Your task to perform on an android device: toggle improve location accuracy Image 0: 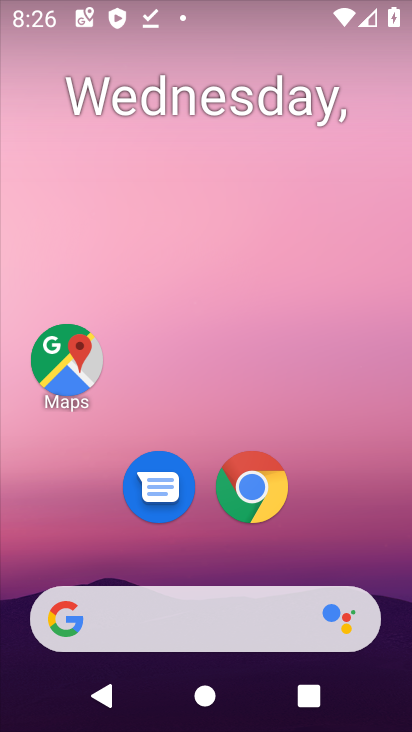
Step 0: drag from (250, 701) to (151, 167)
Your task to perform on an android device: toggle improve location accuracy Image 1: 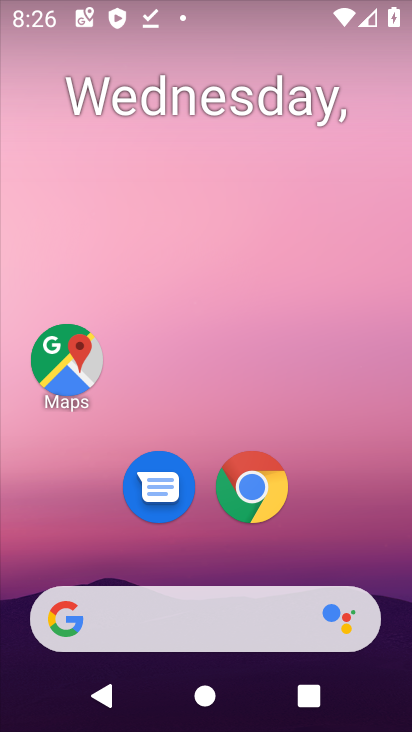
Step 1: drag from (254, 584) to (231, 299)
Your task to perform on an android device: toggle improve location accuracy Image 2: 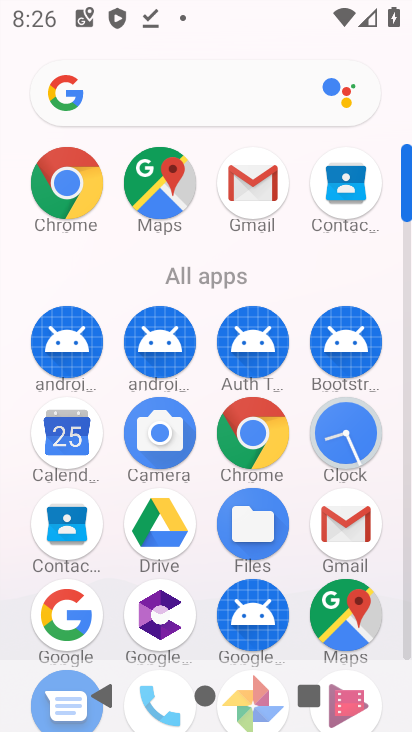
Step 2: drag from (194, 566) to (170, 306)
Your task to perform on an android device: toggle improve location accuracy Image 3: 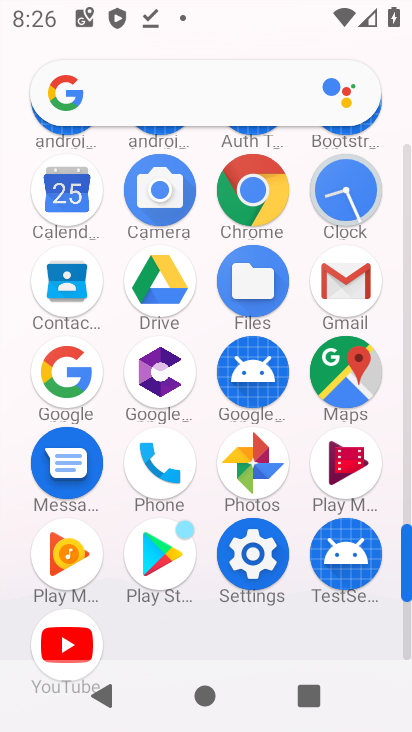
Step 3: click (251, 554)
Your task to perform on an android device: toggle improve location accuracy Image 4: 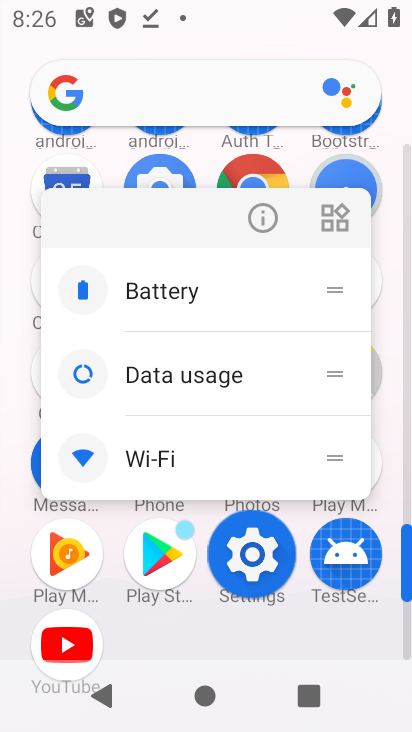
Step 4: click (251, 554)
Your task to perform on an android device: toggle improve location accuracy Image 5: 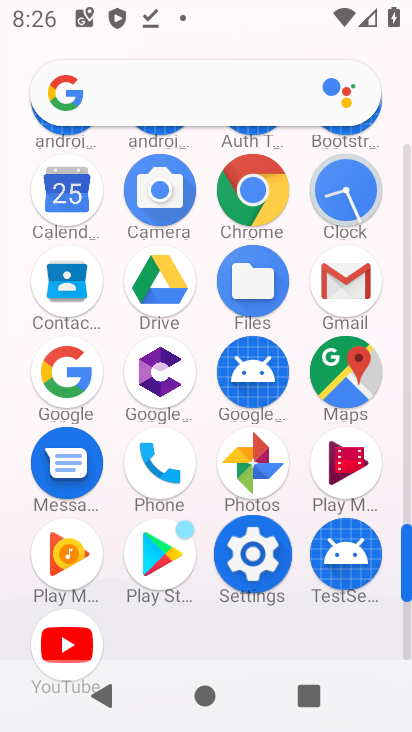
Step 5: click (251, 554)
Your task to perform on an android device: toggle improve location accuracy Image 6: 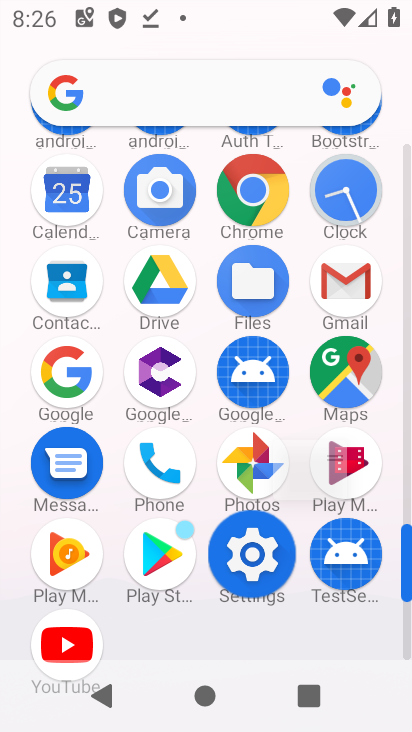
Step 6: click (251, 546)
Your task to perform on an android device: toggle improve location accuracy Image 7: 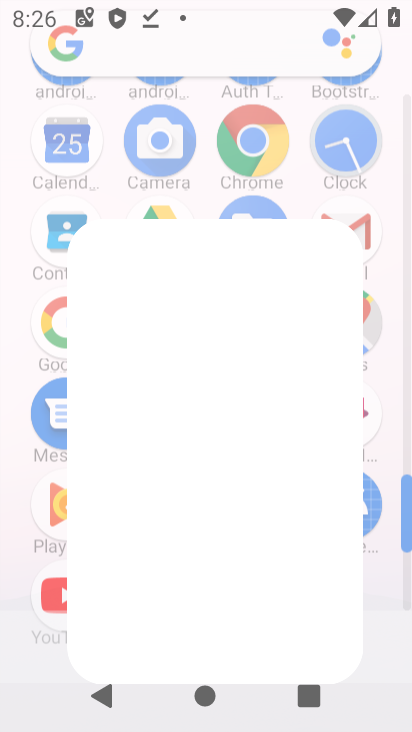
Step 7: click (251, 539)
Your task to perform on an android device: toggle improve location accuracy Image 8: 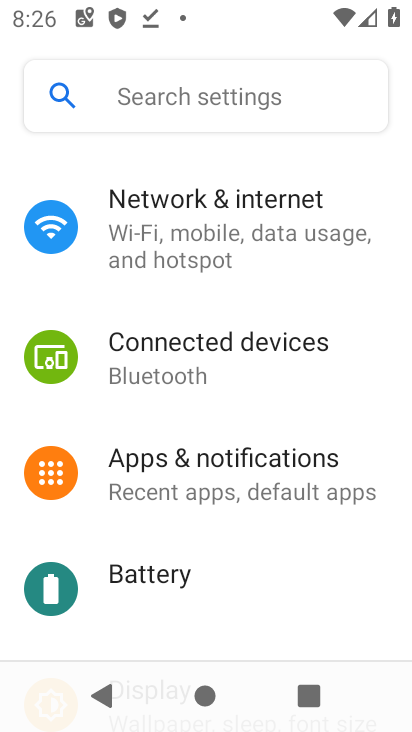
Step 8: click (260, 506)
Your task to perform on an android device: toggle improve location accuracy Image 9: 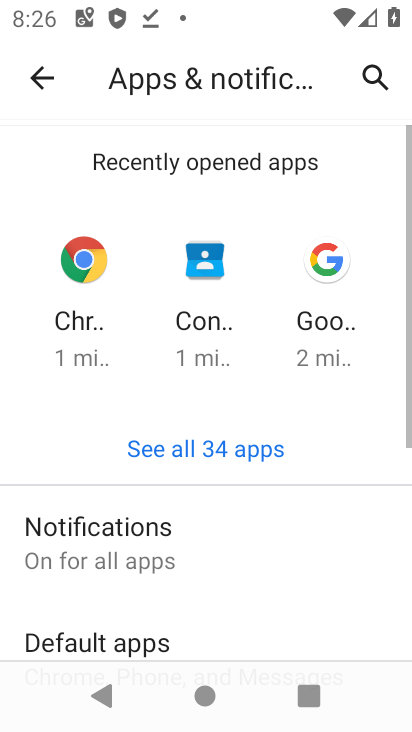
Step 9: click (38, 74)
Your task to perform on an android device: toggle improve location accuracy Image 10: 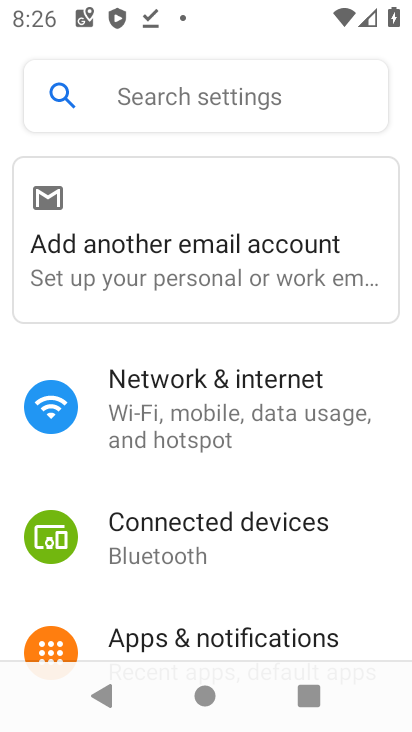
Step 10: drag from (198, 597) to (172, 137)
Your task to perform on an android device: toggle improve location accuracy Image 11: 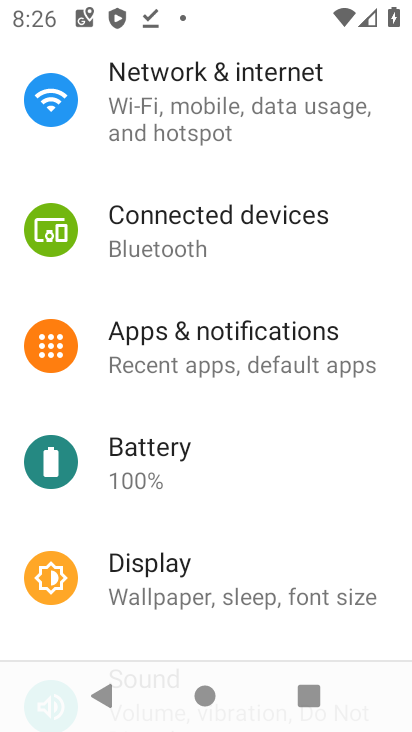
Step 11: drag from (173, 464) to (198, 175)
Your task to perform on an android device: toggle improve location accuracy Image 12: 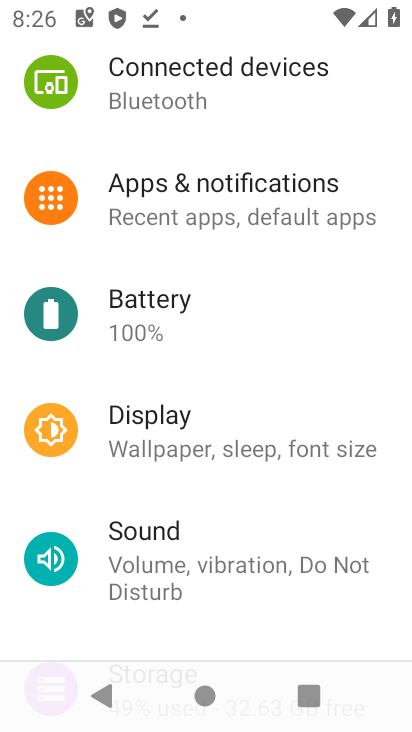
Step 12: drag from (240, 494) to (233, 198)
Your task to perform on an android device: toggle improve location accuracy Image 13: 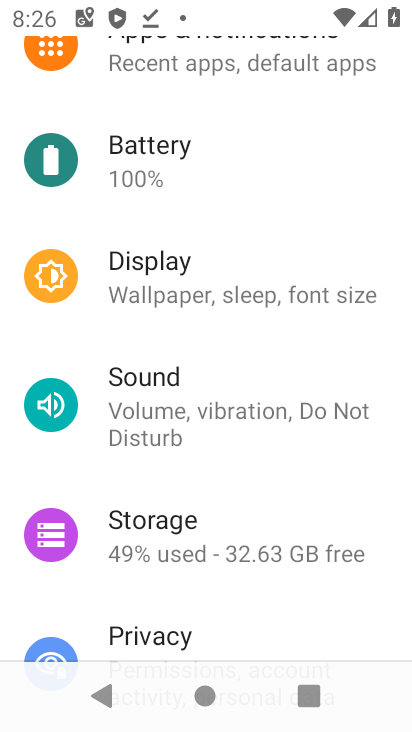
Step 13: drag from (260, 452) to (260, 171)
Your task to perform on an android device: toggle improve location accuracy Image 14: 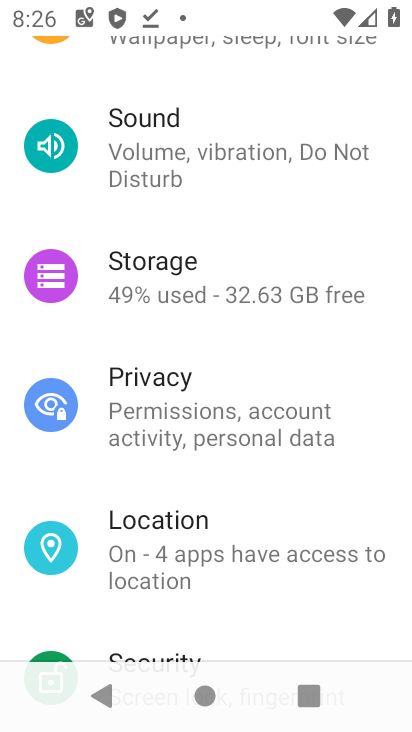
Step 14: drag from (261, 483) to (206, 147)
Your task to perform on an android device: toggle improve location accuracy Image 15: 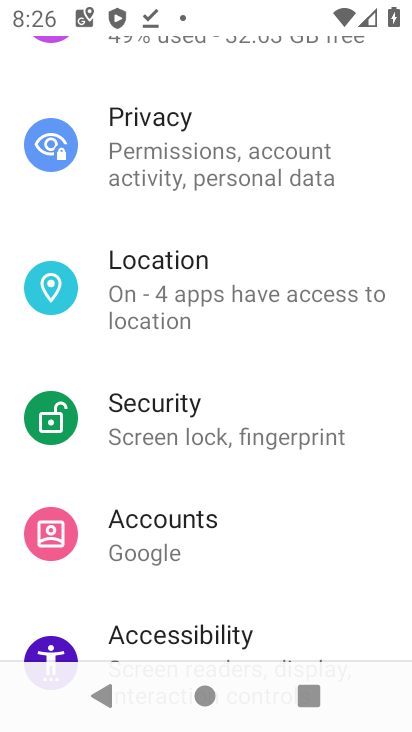
Step 15: click (176, 281)
Your task to perform on an android device: toggle improve location accuracy Image 16: 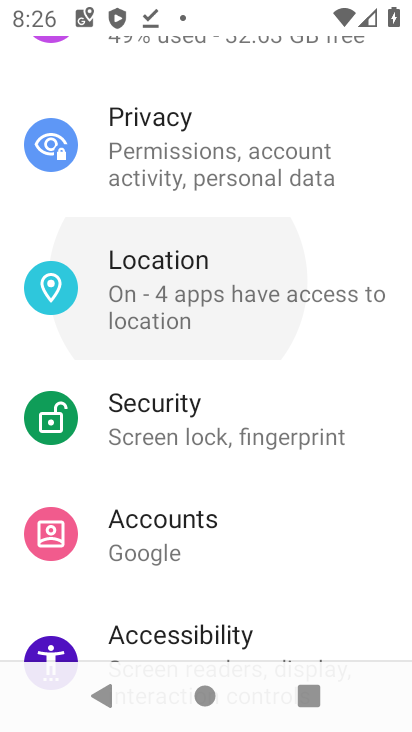
Step 16: click (176, 281)
Your task to perform on an android device: toggle improve location accuracy Image 17: 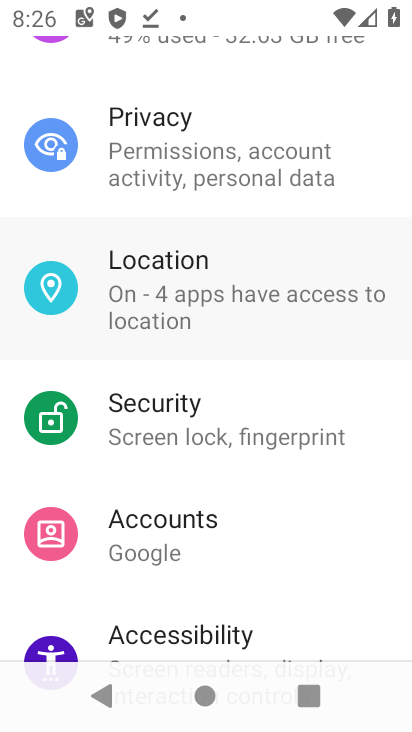
Step 17: click (176, 281)
Your task to perform on an android device: toggle improve location accuracy Image 18: 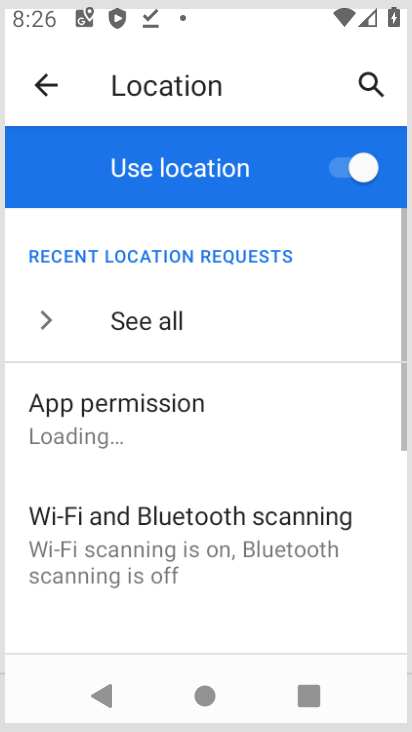
Step 18: click (176, 280)
Your task to perform on an android device: toggle improve location accuracy Image 19: 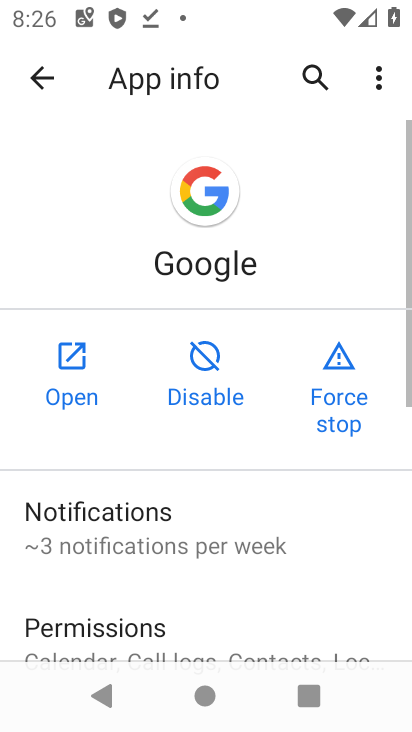
Step 19: click (357, 160)
Your task to perform on an android device: toggle improve location accuracy Image 20: 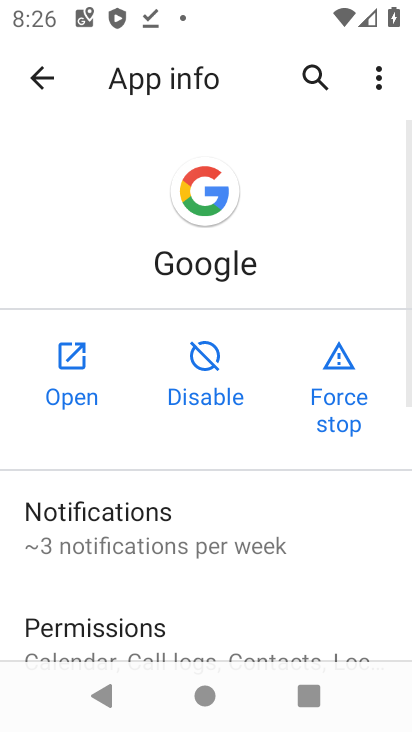
Step 20: click (38, 73)
Your task to perform on an android device: toggle improve location accuracy Image 21: 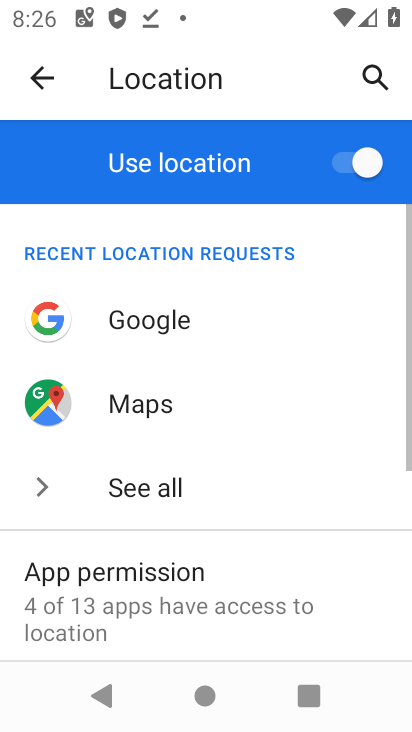
Step 21: drag from (238, 471) to (202, 90)
Your task to perform on an android device: toggle improve location accuracy Image 22: 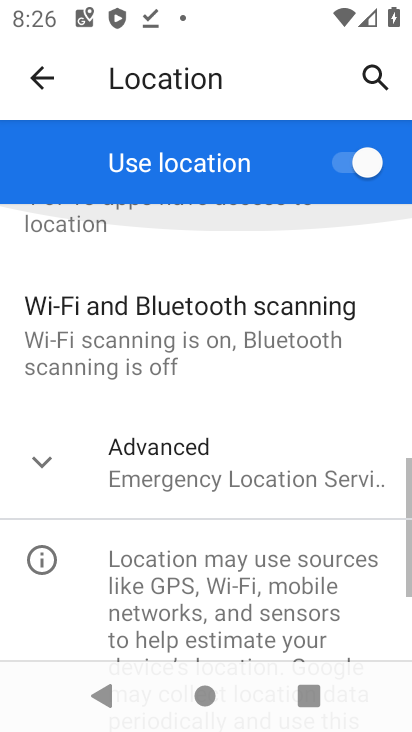
Step 22: drag from (164, 421) to (208, 89)
Your task to perform on an android device: toggle improve location accuracy Image 23: 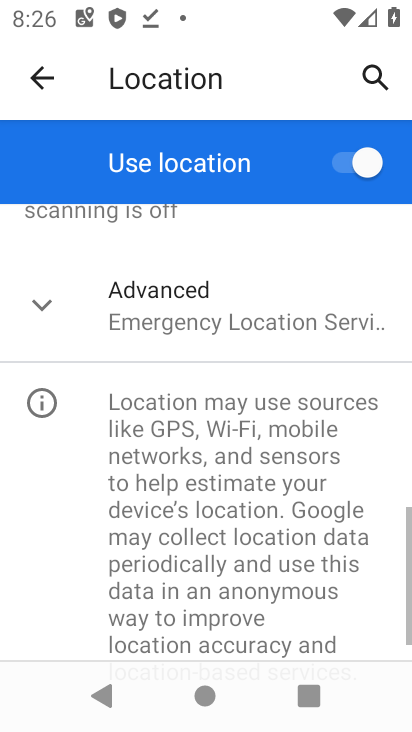
Step 23: drag from (171, 458) to (204, 146)
Your task to perform on an android device: toggle improve location accuracy Image 24: 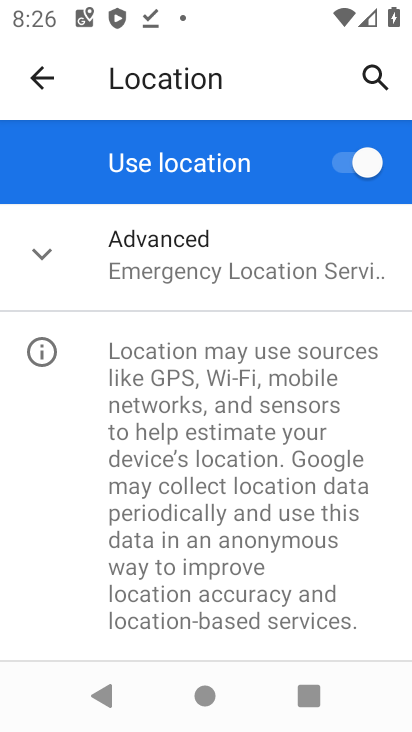
Step 24: click (175, 257)
Your task to perform on an android device: toggle improve location accuracy Image 25: 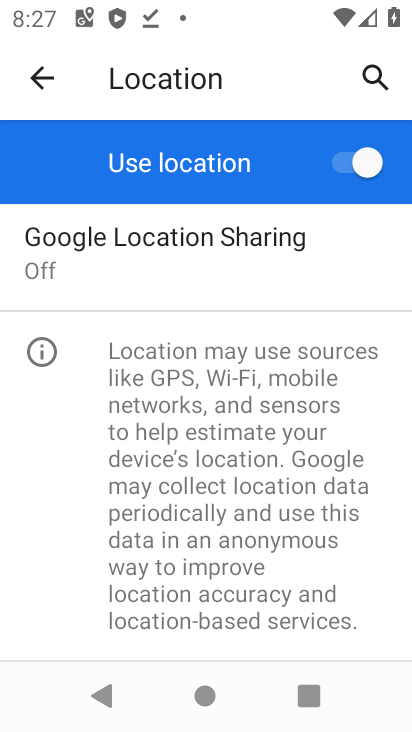
Step 25: click (178, 255)
Your task to perform on an android device: toggle improve location accuracy Image 26: 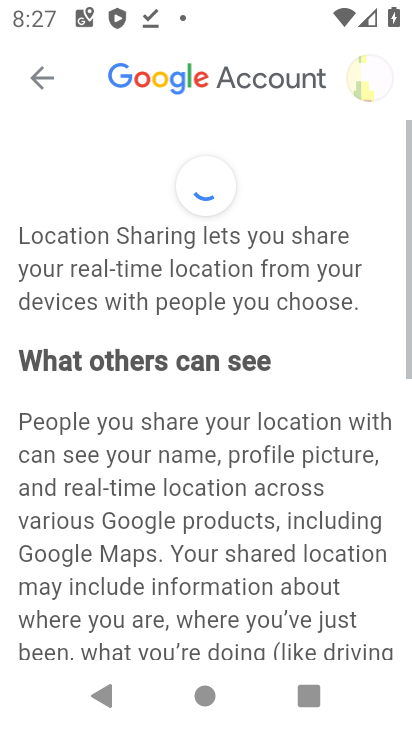
Step 26: click (179, 621)
Your task to perform on an android device: toggle improve location accuracy Image 27: 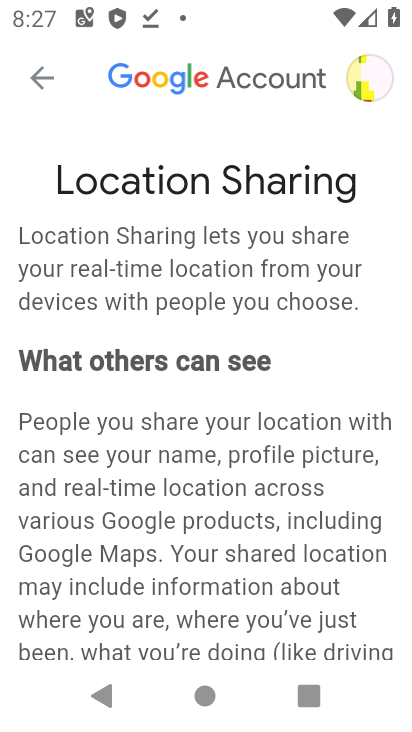
Step 27: click (171, 511)
Your task to perform on an android device: toggle improve location accuracy Image 28: 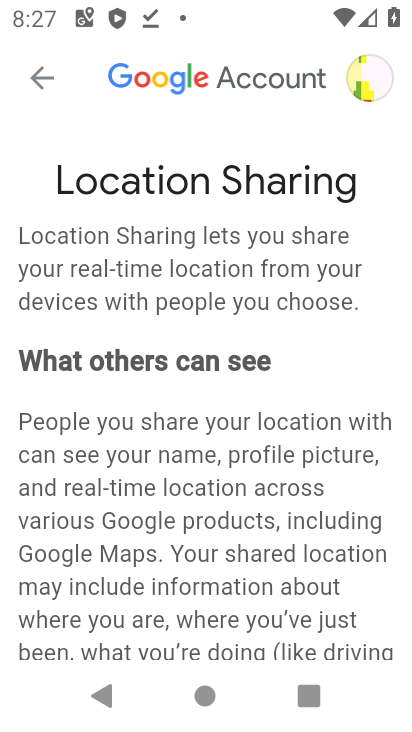
Step 28: click (35, 73)
Your task to perform on an android device: toggle improve location accuracy Image 29: 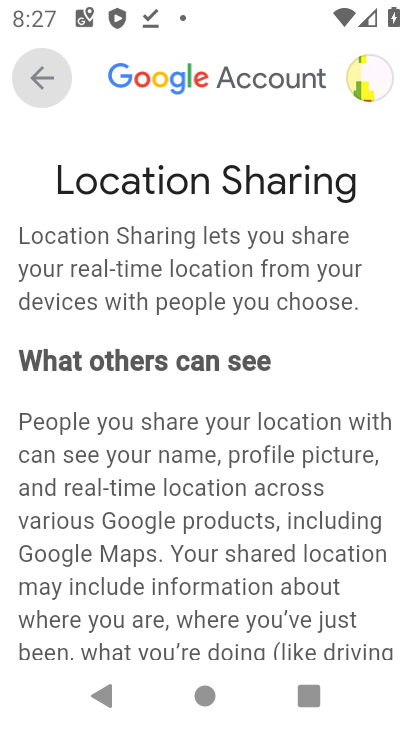
Step 29: click (44, 77)
Your task to perform on an android device: toggle improve location accuracy Image 30: 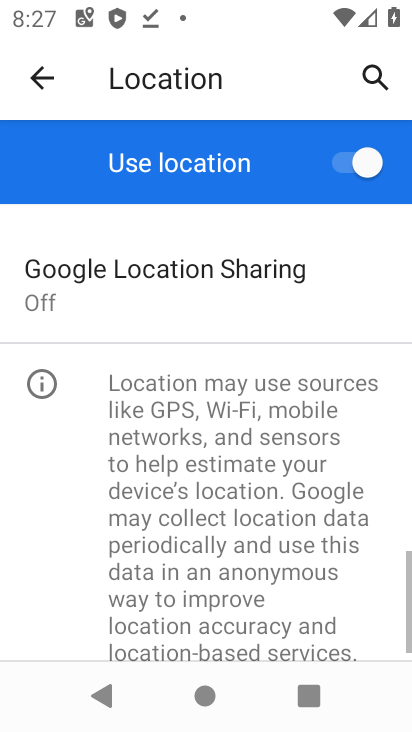
Step 30: drag from (182, 237) to (258, 499)
Your task to perform on an android device: toggle improve location accuracy Image 31: 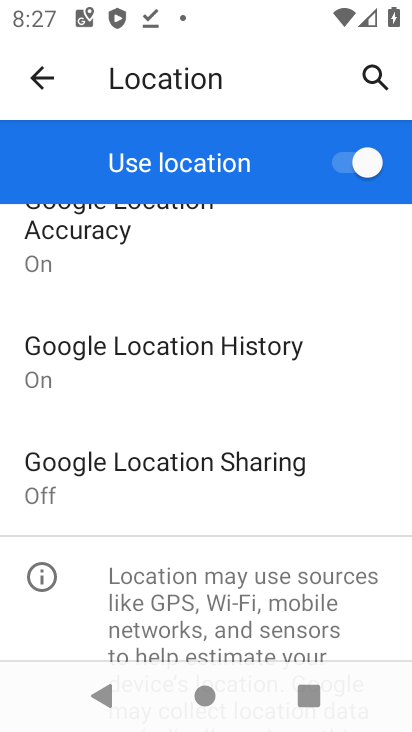
Step 31: drag from (201, 343) to (254, 591)
Your task to perform on an android device: toggle improve location accuracy Image 32: 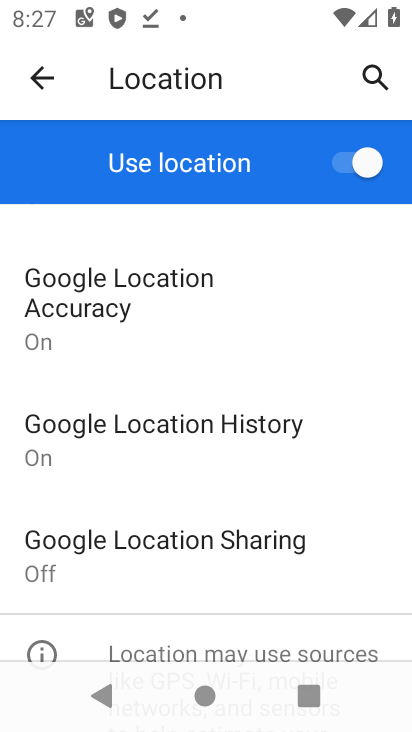
Step 32: click (84, 311)
Your task to perform on an android device: toggle improve location accuracy Image 33: 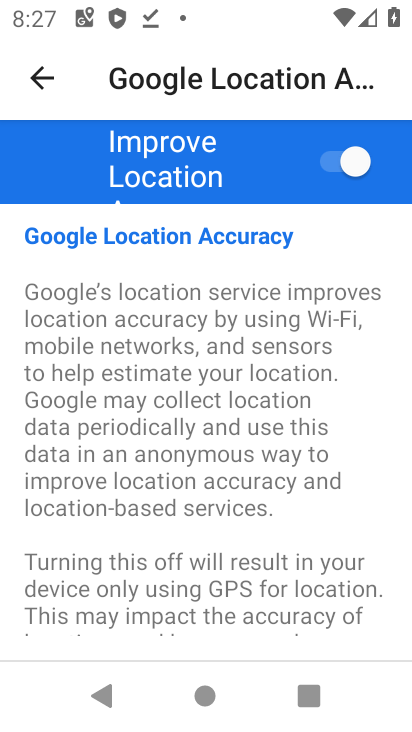
Step 33: click (348, 162)
Your task to perform on an android device: toggle improve location accuracy Image 34: 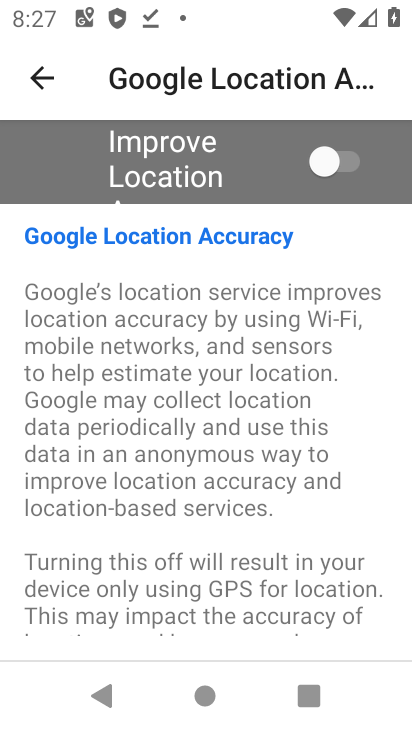
Step 34: task complete